Your task to perform on an android device: toggle wifi Image 0: 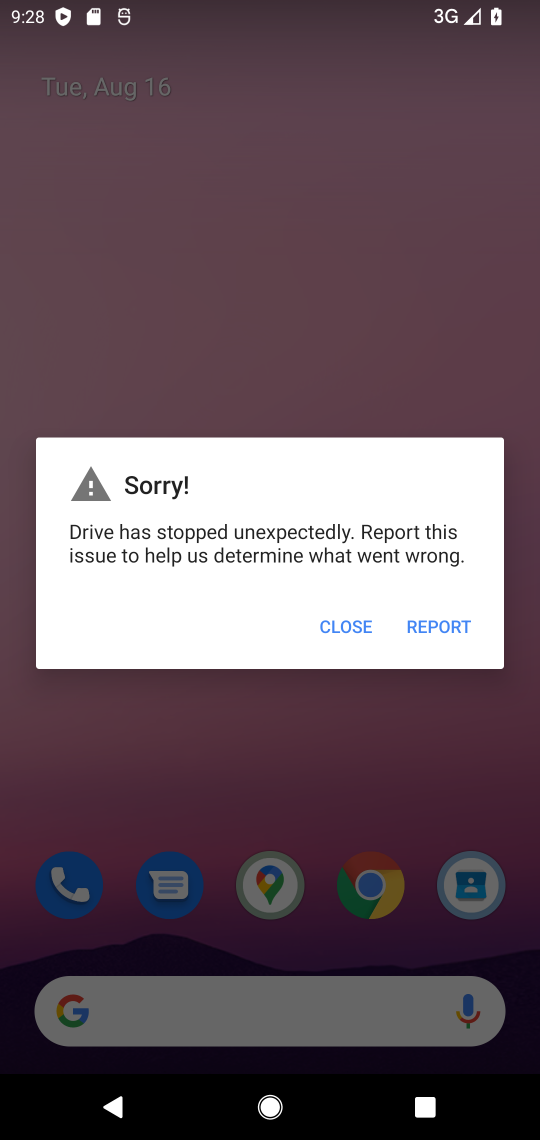
Step 0: press home button
Your task to perform on an android device: toggle wifi Image 1: 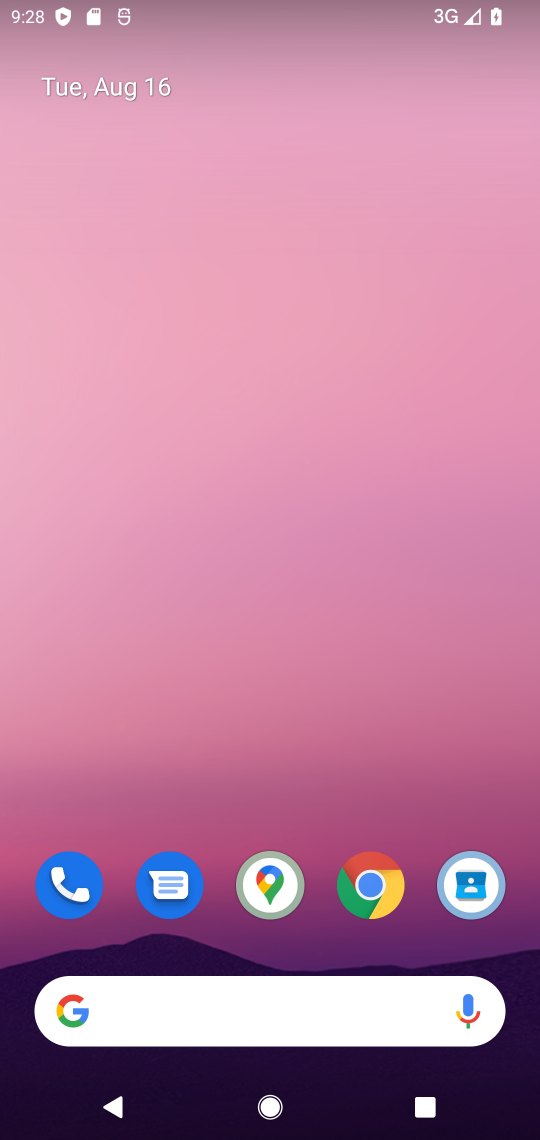
Step 1: drag from (286, 949) to (315, 348)
Your task to perform on an android device: toggle wifi Image 2: 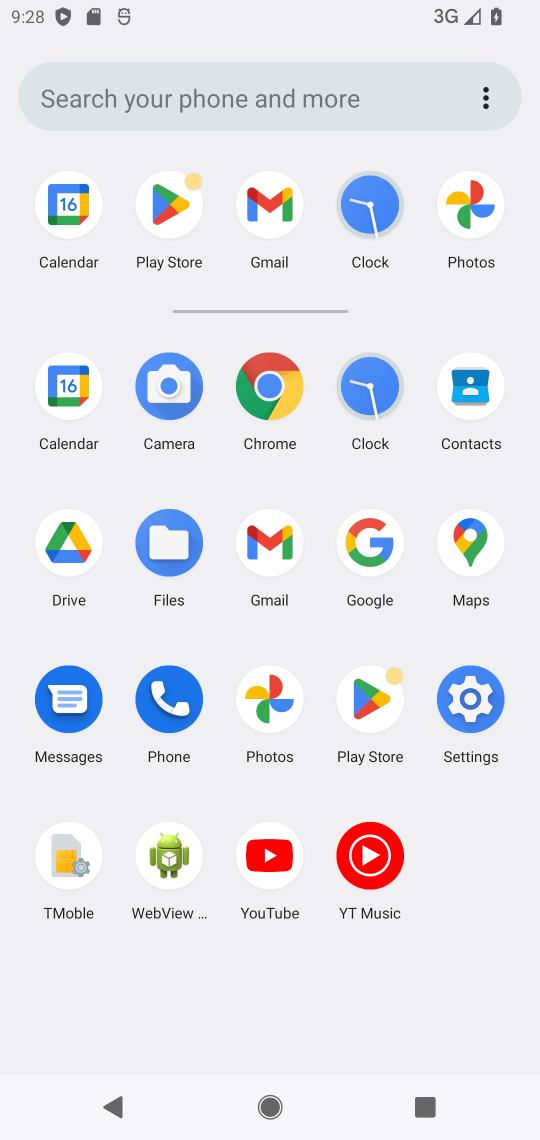
Step 2: click (474, 683)
Your task to perform on an android device: toggle wifi Image 3: 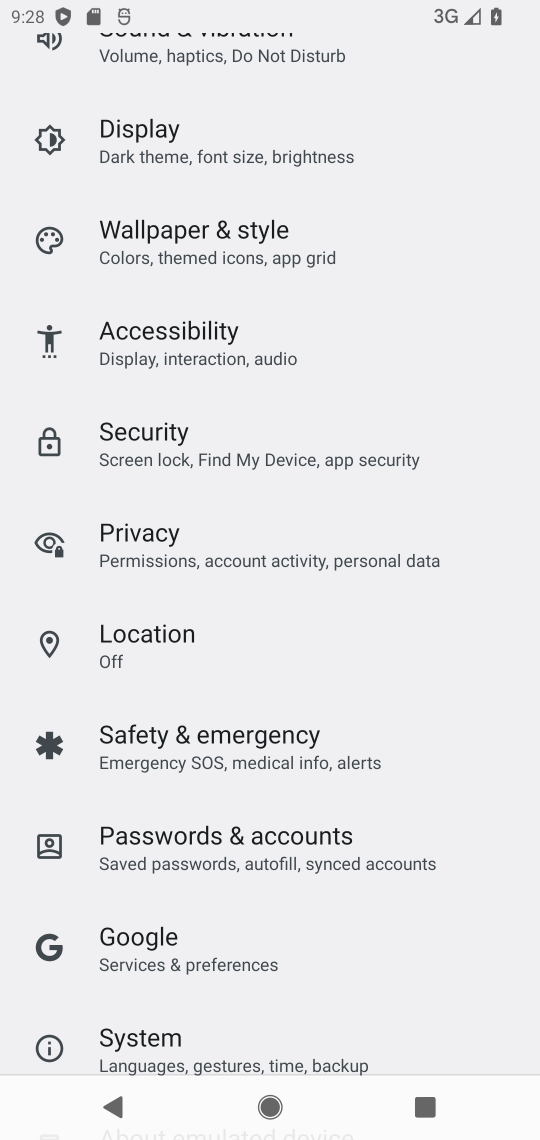
Step 3: drag from (321, 344) to (234, 1101)
Your task to perform on an android device: toggle wifi Image 4: 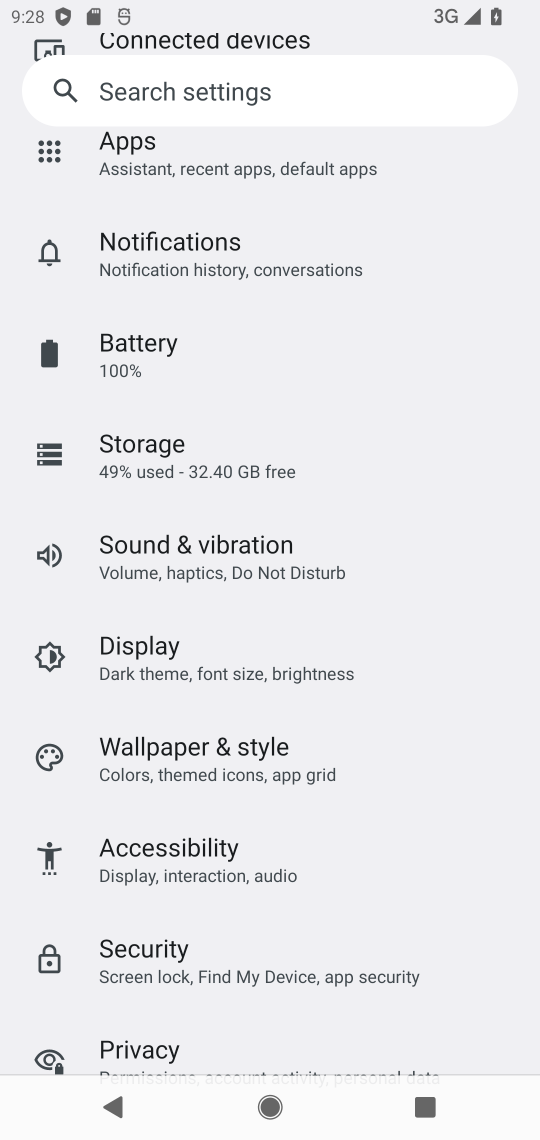
Step 4: drag from (267, 203) to (241, 826)
Your task to perform on an android device: toggle wifi Image 5: 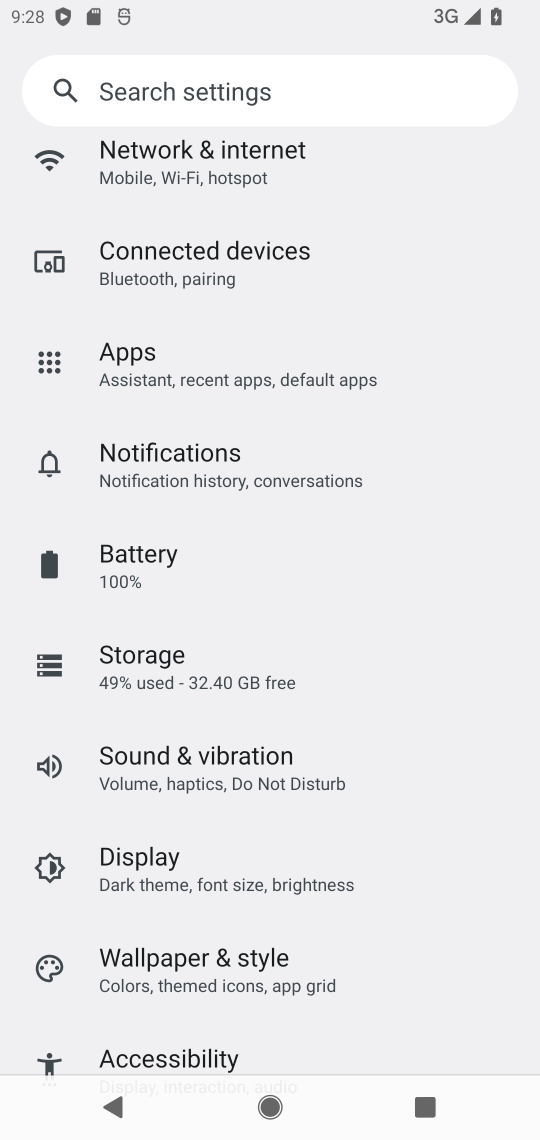
Step 5: click (234, 160)
Your task to perform on an android device: toggle wifi Image 6: 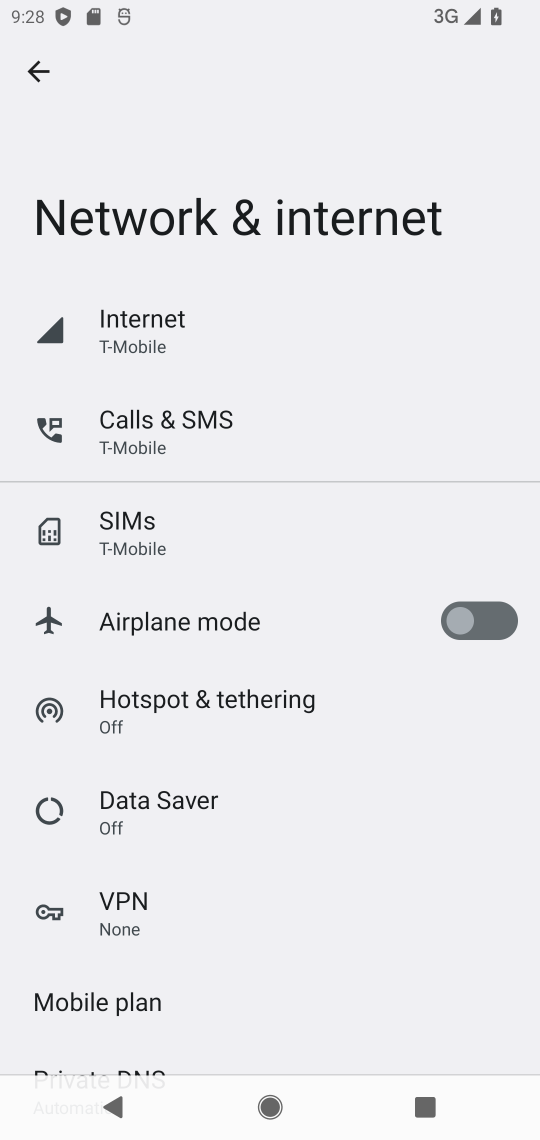
Step 6: click (133, 338)
Your task to perform on an android device: toggle wifi Image 7: 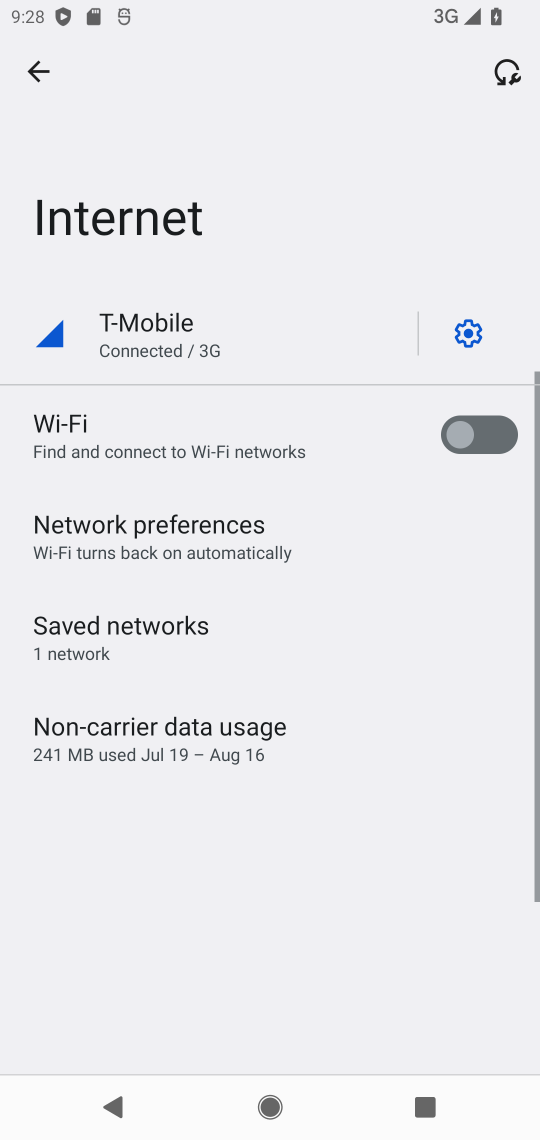
Step 7: click (90, 430)
Your task to perform on an android device: toggle wifi Image 8: 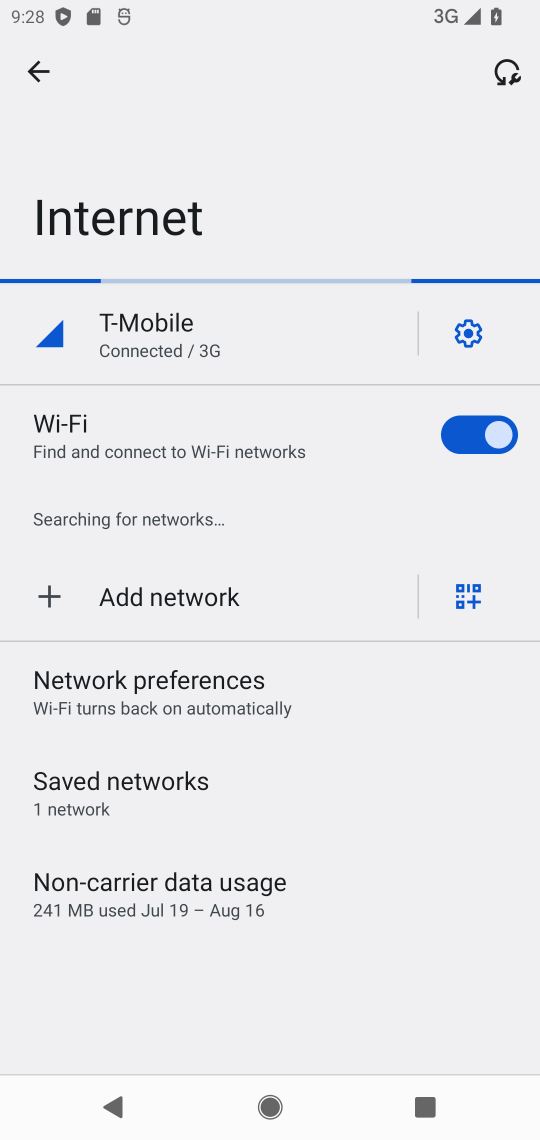
Step 8: task complete